Your task to perform on an android device: Open Chrome and go to the settings page Image 0: 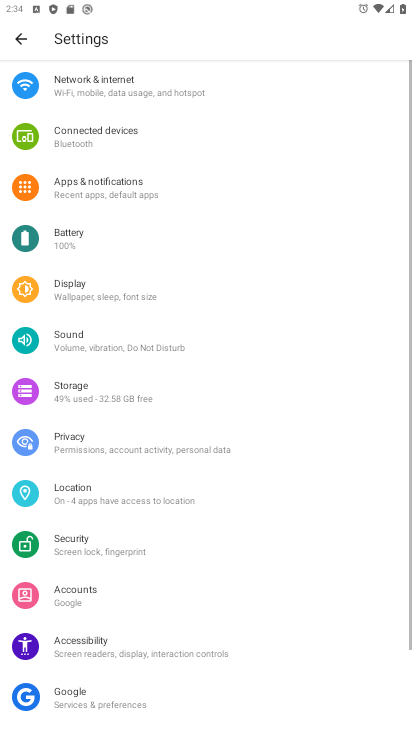
Step 0: press home button
Your task to perform on an android device: Open Chrome and go to the settings page Image 1: 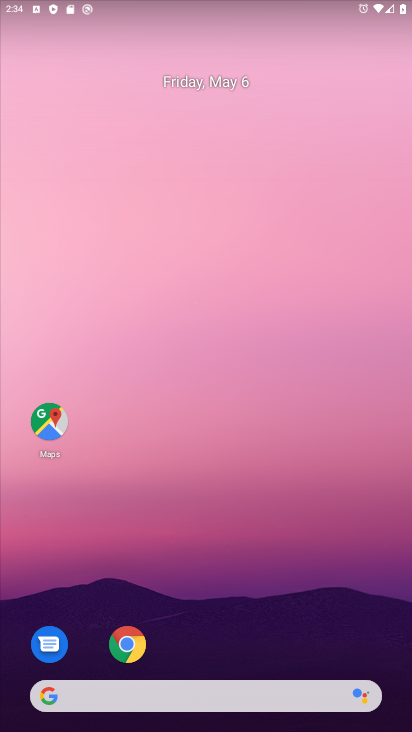
Step 1: click (136, 647)
Your task to perform on an android device: Open Chrome and go to the settings page Image 2: 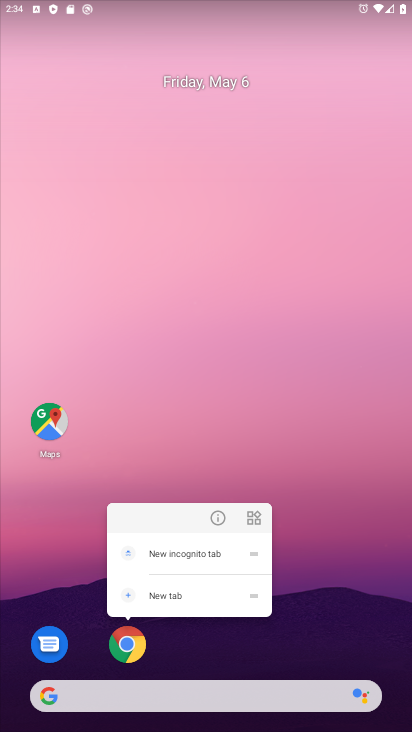
Step 2: click (139, 639)
Your task to perform on an android device: Open Chrome and go to the settings page Image 3: 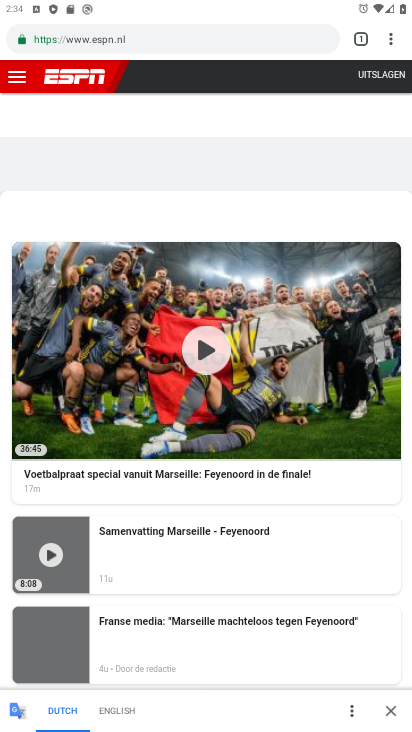
Step 3: click (389, 46)
Your task to perform on an android device: Open Chrome and go to the settings page Image 4: 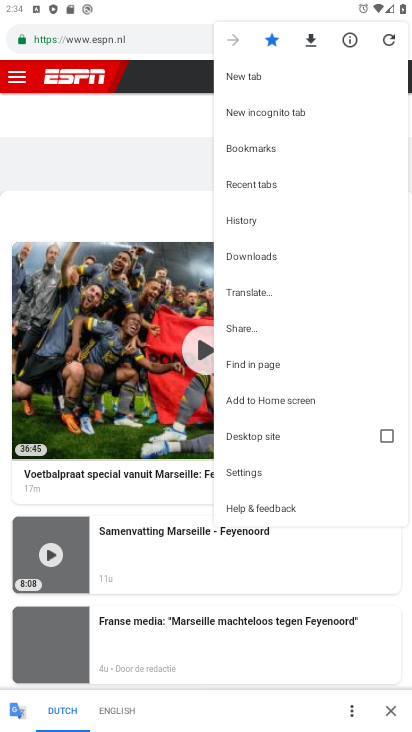
Step 4: click (238, 475)
Your task to perform on an android device: Open Chrome and go to the settings page Image 5: 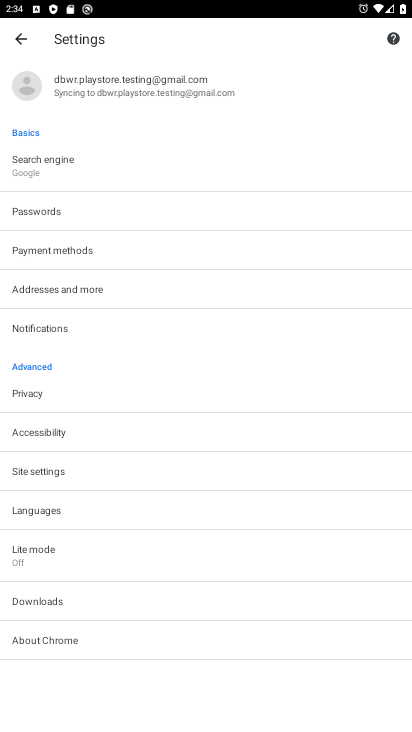
Step 5: task complete